Your task to perform on an android device: Search for pizza restaurants on Maps Image 0: 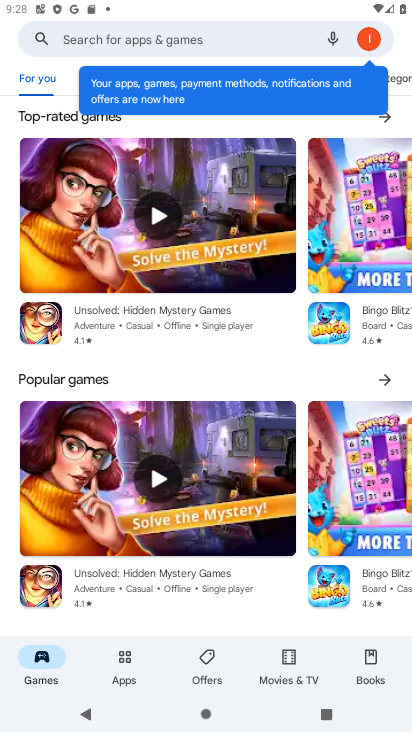
Step 0: press home button
Your task to perform on an android device: Search for pizza restaurants on Maps Image 1: 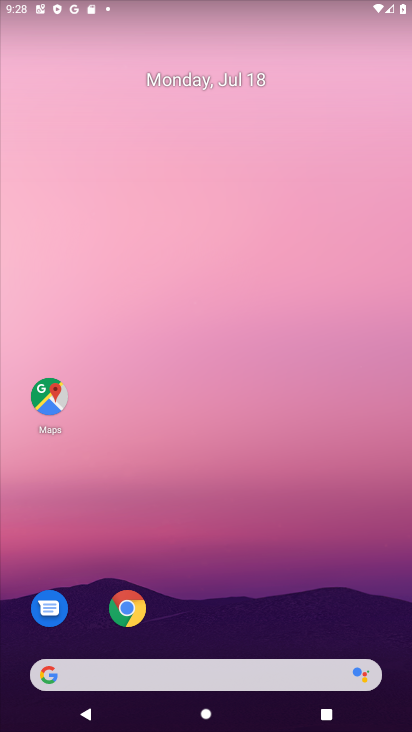
Step 1: click (44, 398)
Your task to perform on an android device: Search for pizza restaurants on Maps Image 2: 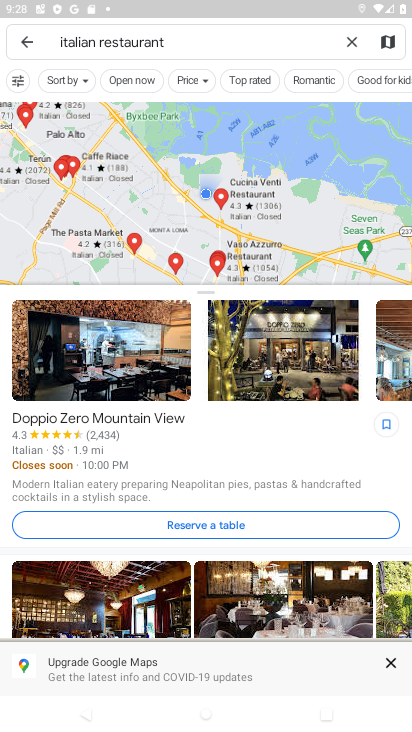
Step 2: click (356, 39)
Your task to perform on an android device: Search for pizza restaurants on Maps Image 3: 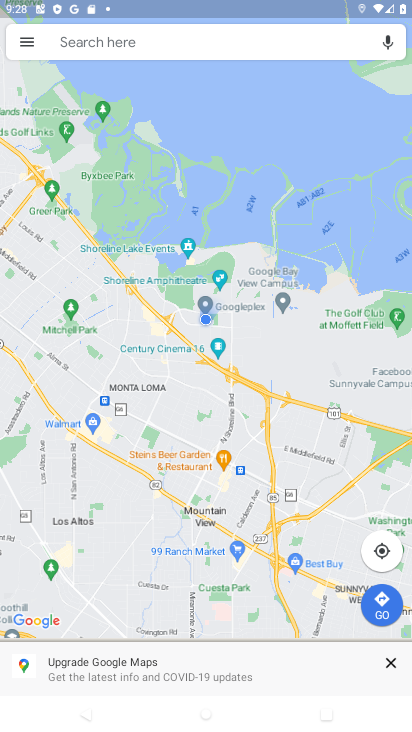
Step 3: click (229, 45)
Your task to perform on an android device: Search for pizza restaurants on Maps Image 4: 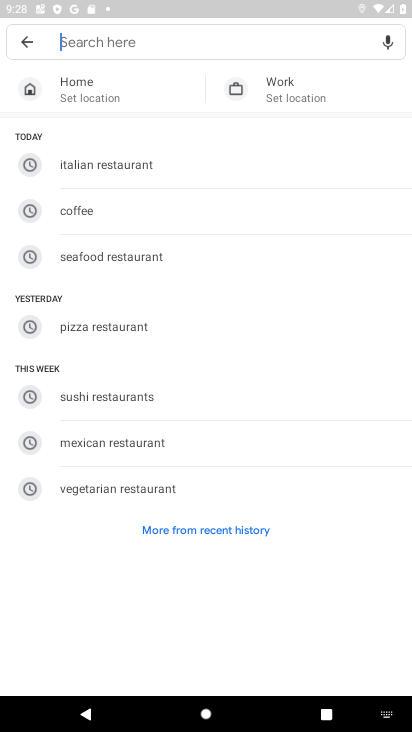
Step 4: click (116, 334)
Your task to perform on an android device: Search for pizza restaurants on Maps Image 5: 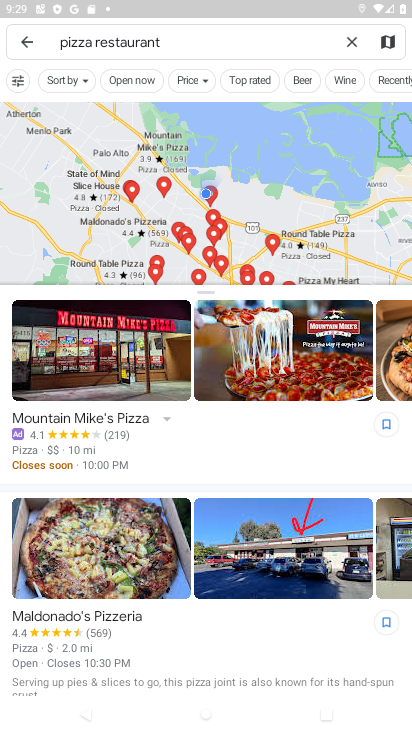
Step 5: task complete